Your task to perform on an android device: What's the weather going to be this weekend? Image 0: 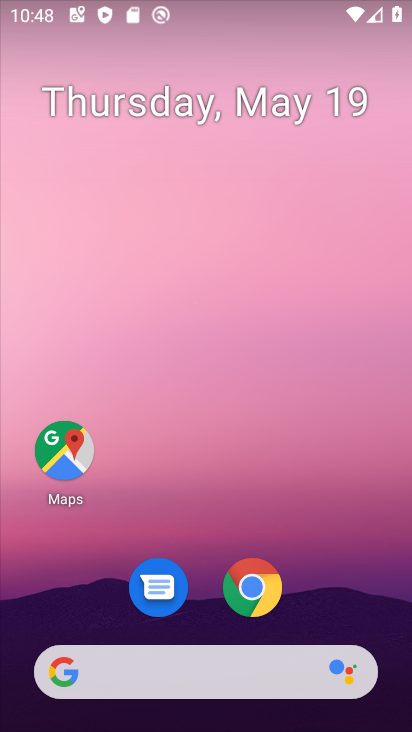
Step 0: drag from (47, 290) to (377, 342)
Your task to perform on an android device: What's the weather going to be this weekend? Image 1: 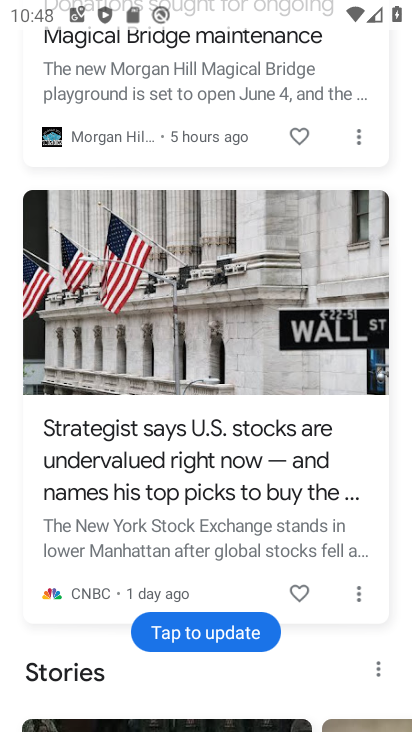
Step 1: drag from (206, 217) to (121, 711)
Your task to perform on an android device: What's the weather going to be this weekend? Image 2: 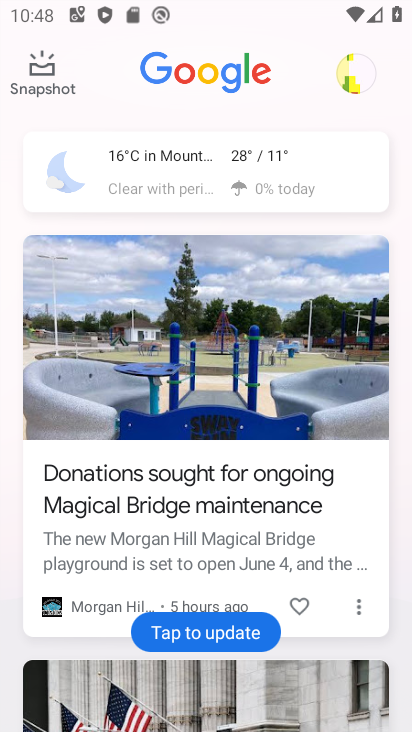
Step 2: click (70, 184)
Your task to perform on an android device: What's the weather going to be this weekend? Image 3: 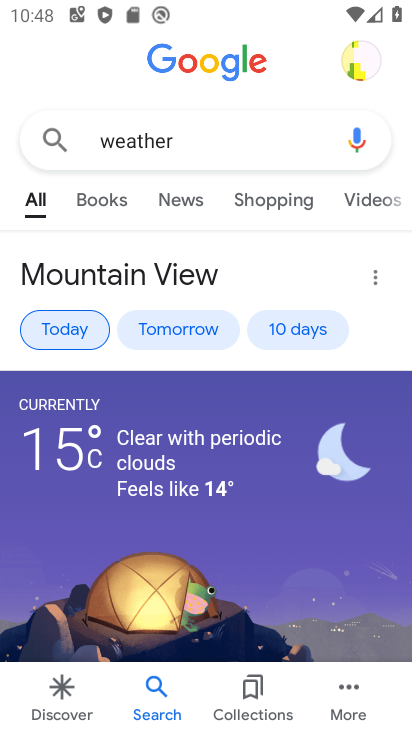
Step 3: click (305, 331)
Your task to perform on an android device: What's the weather going to be this weekend? Image 4: 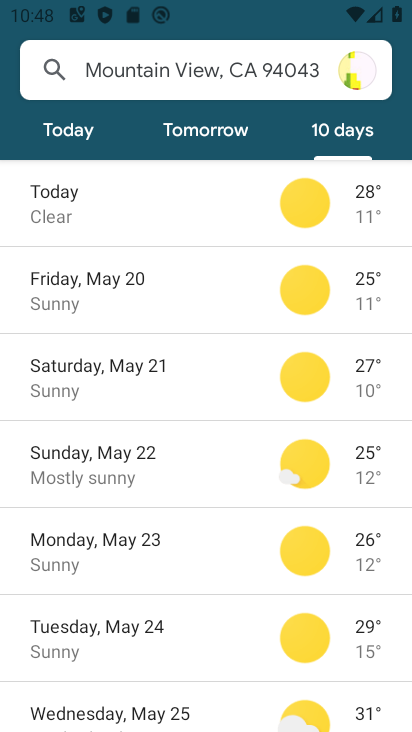
Step 4: task complete